Your task to perform on an android device: Go to Wikipedia Image 0: 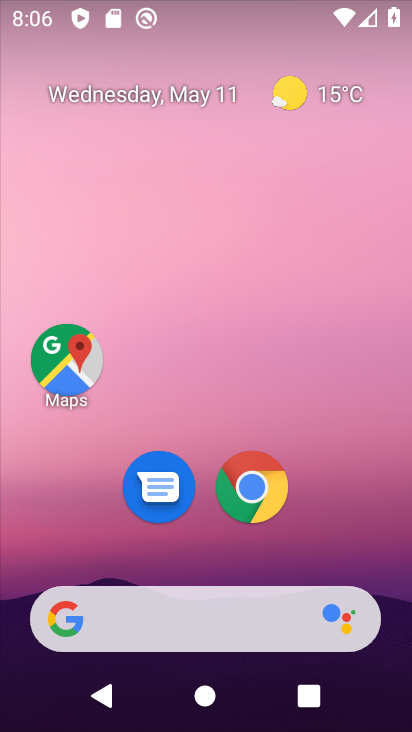
Step 0: press home button
Your task to perform on an android device: Go to Wikipedia Image 1: 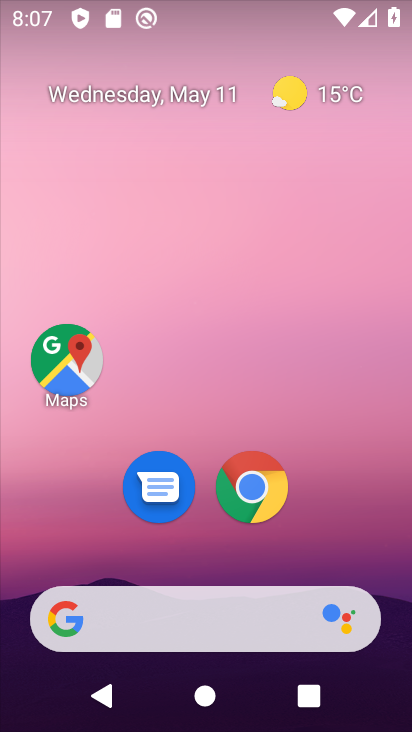
Step 1: drag from (255, 658) to (267, 193)
Your task to perform on an android device: Go to Wikipedia Image 2: 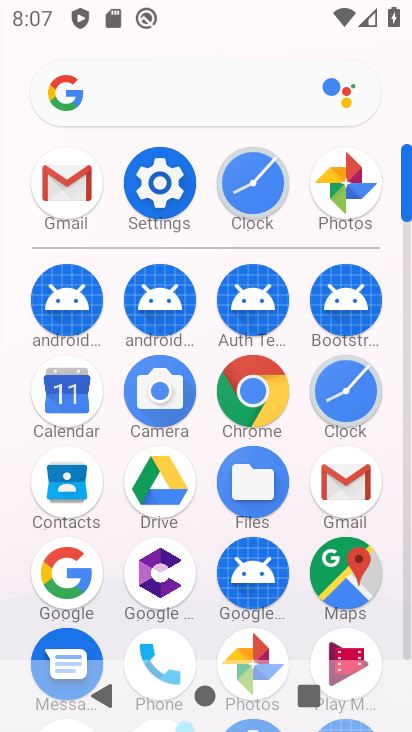
Step 2: click (257, 405)
Your task to perform on an android device: Go to Wikipedia Image 3: 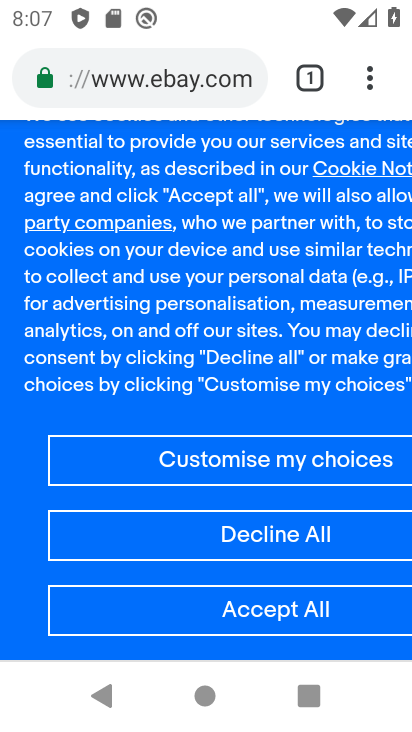
Step 3: click (322, 71)
Your task to perform on an android device: Go to Wikipedia Image 4: 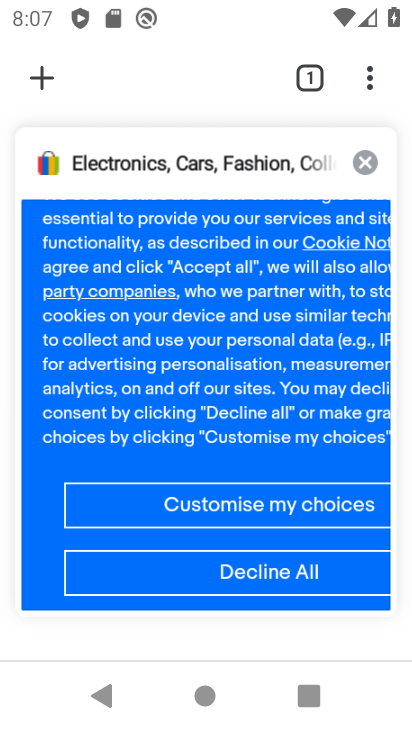
Step 4: click (26, 58)
Your task to perform on an android device: Go to Wikipedia Image 5: 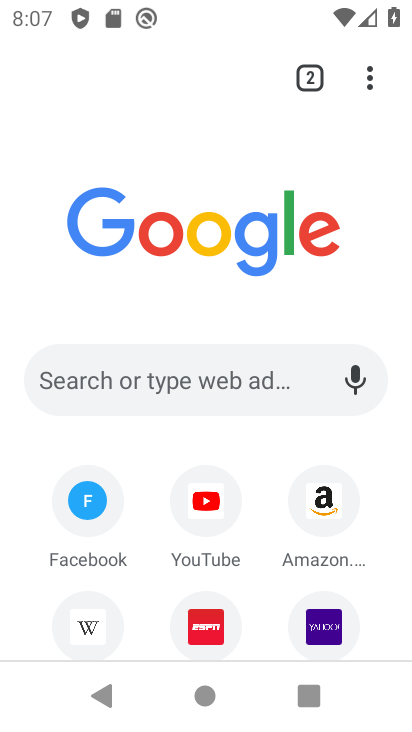
Step 5: click (113, 623)
Your task to perform on an android device: Go to Wikipedia Image 6: 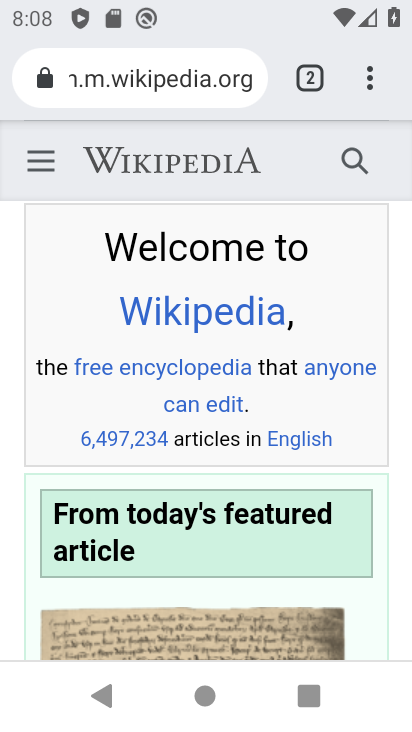
Step 6: task complete